Your task to perform on an android device: Search for vegetarian restaurants on Maps Image 0: 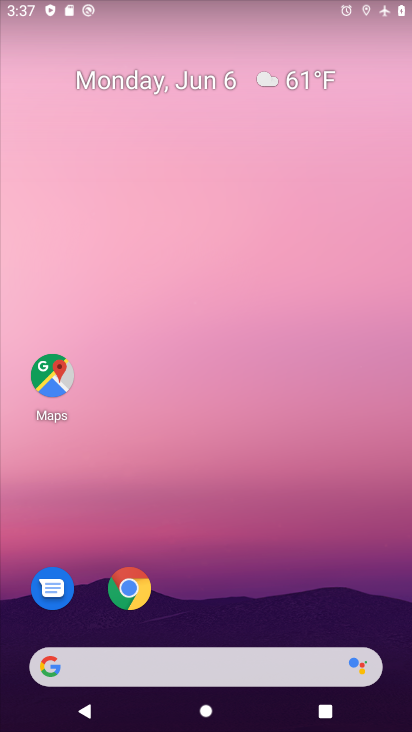
Step 0: click (53, 374)
Your task to perform on an android device: Search for vegetarian restaurants on Maps Image 1: 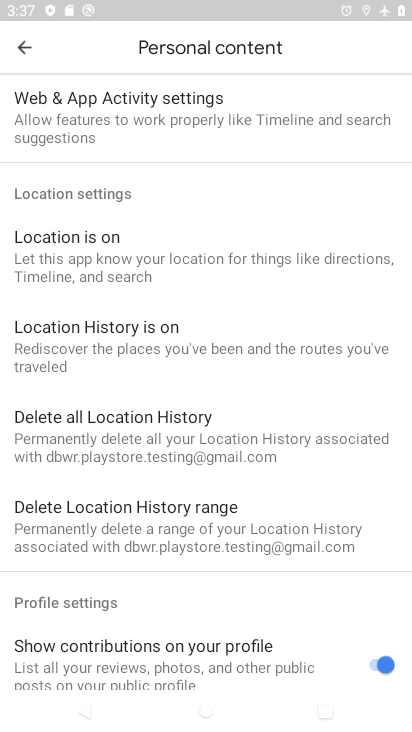
Step 1: click (23, 53)
Your task to perform on an android device: Search for vegetarian restaurants on Maps Image 2: 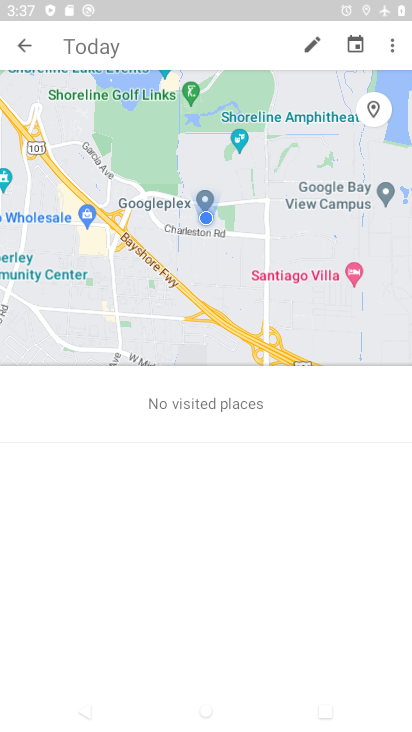
Step 2: click (35, 55)
Your task to perform on an android device: Search for vegetarian restaurants on Maps Image 3: 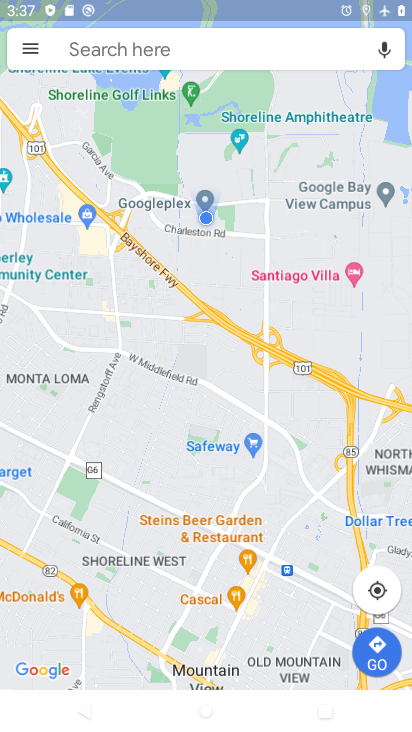
Step 3: click (114, 48)
Your task to perform on an android device: Search for vegetarian restaurants on Maps Image 4: 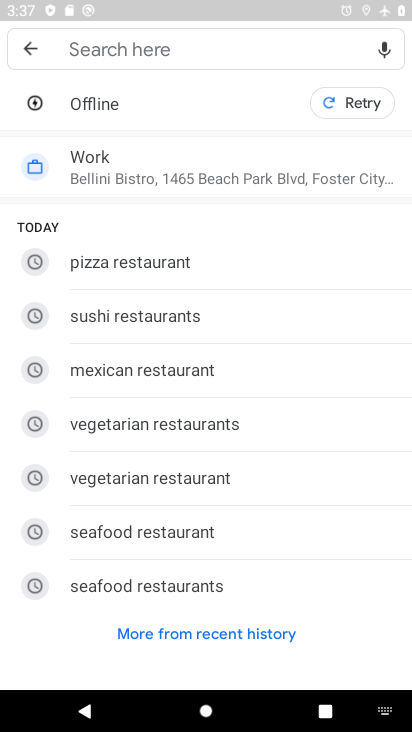
Step 4: click (219, 482)
Your task to perform on an android device: Search for vegetarian restaurants on Maps Image 5: 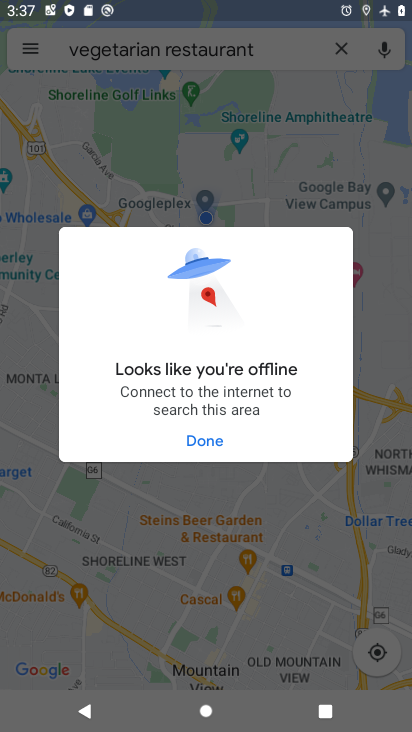
Step 5: click (211, 445)
Your task to perform on an android device: Search for vegetarian restaurants on Maps Image 6: 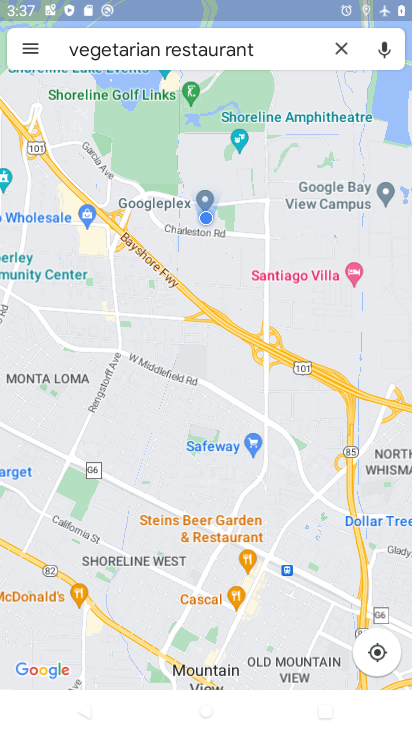
Step 6: task complete